Your task to perform on an android device: turn off translation in the chrome app Image 0: 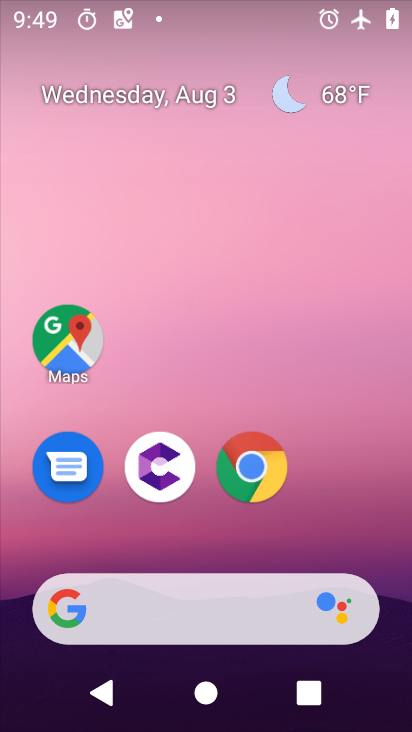
Step 0: drag from (333, 487) to (347, 41)
Your task to perform on an android device: turn off translation in the chrome app Image 1: 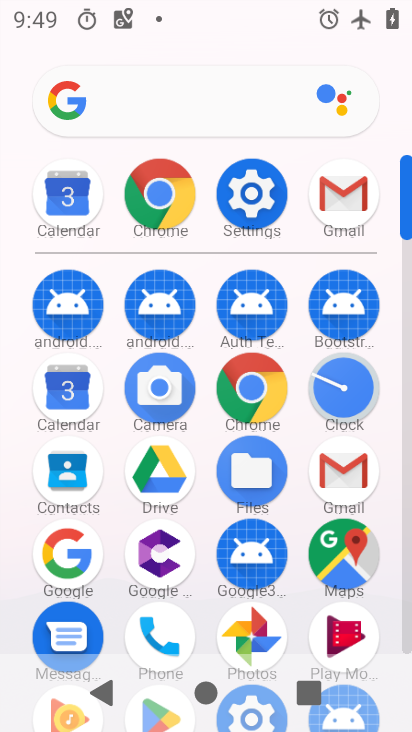
Step 1: click (257, 388)
Your task to perform on an android device: turn off translation in the chrome app Image 2: 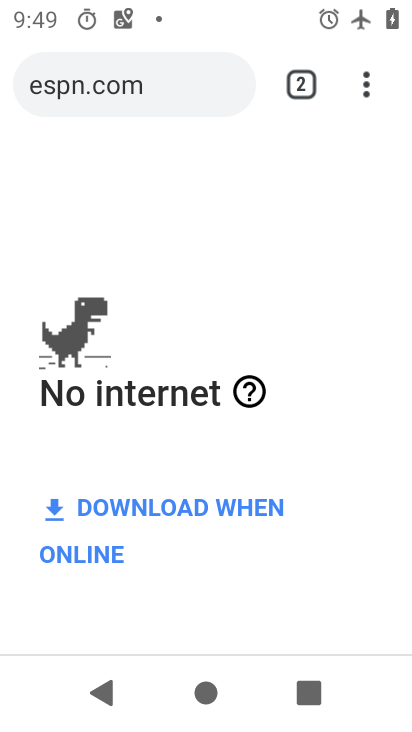
Step 2: drag from (368, 79) to (148, 497)
Your task to perform on an android device: turn off translation in the chrome app Image 3: 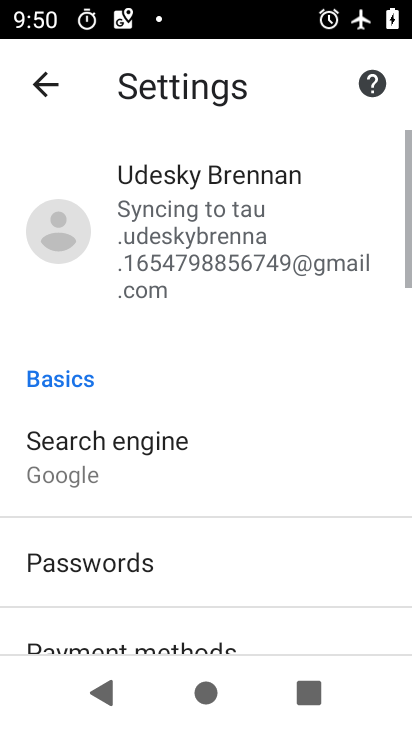
Step 3: drag from (263, 538) to (357, 114)
Your task to perform on an android device: turn off translation in the chrome app Image 4: 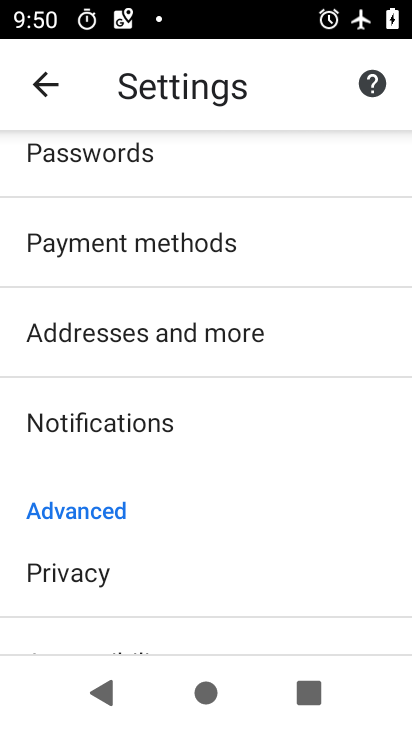
Step 4: drag from (257, 527) to (294, 203)
Your task to perform on an android device: turn off translation in the chrome app Image 5: 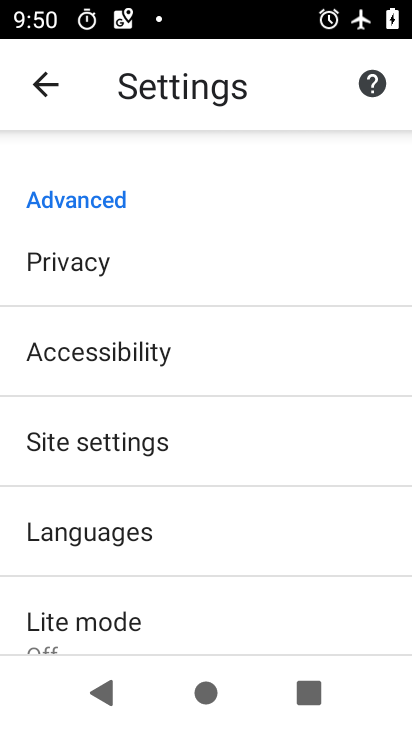
Step 5: click (124, 538)
Your task to perform on an android device: turn off translation in the chrome app Image 6: 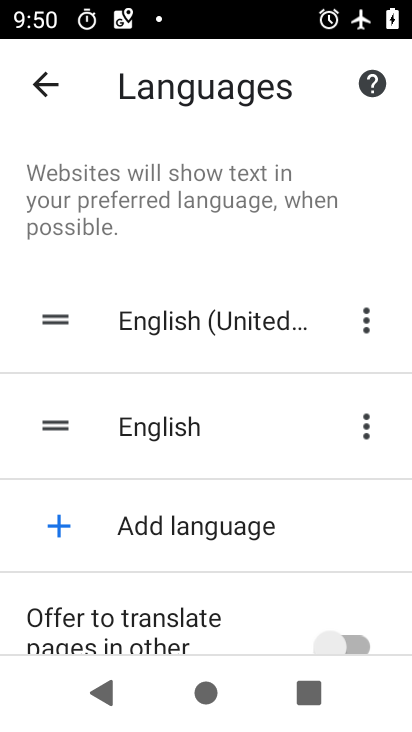
Step 6: task complete